Your task to perform on an android device: find snoozed emails in the gmail app Image 0: 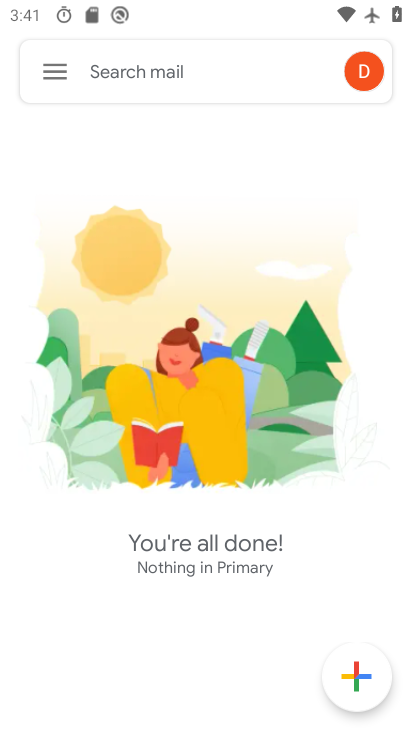
Step 0: press back button
Your task to perform on an android device: find snoozed emails in the gmail app Image 1: 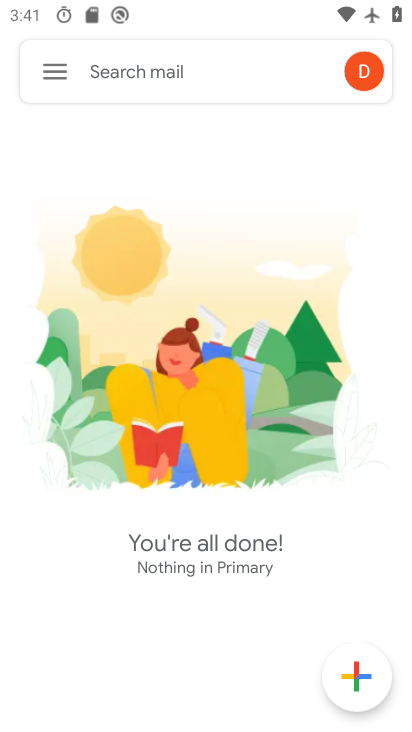
Step 1: press back button
Your task to perform on an android device: find snoozed emails in the gmail app Image 2: 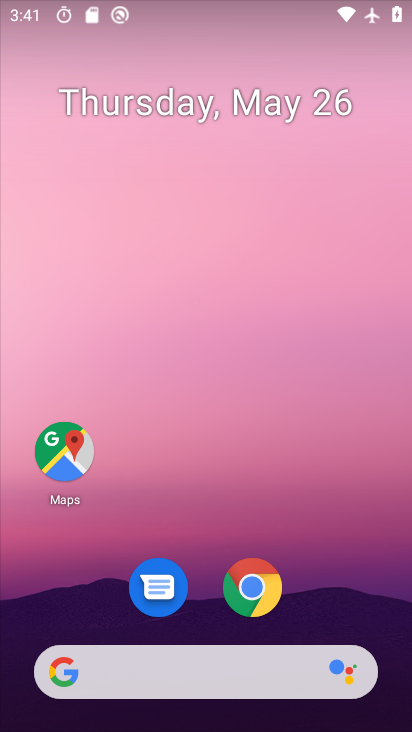
Step 2: drag from (303, 504) to (120, 3)
Your task to perform on an android device: find snoozed emails in the gmail app Image 3: 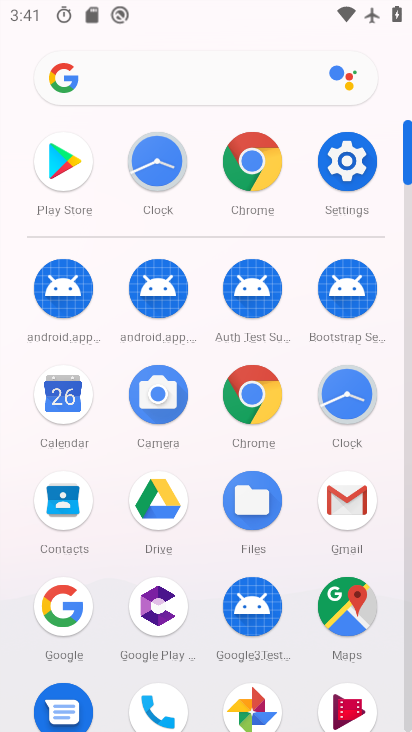
Step 3: click (349, 497)
Your task to perform on an android device: find snoozed emails in the gmail app Image 4: 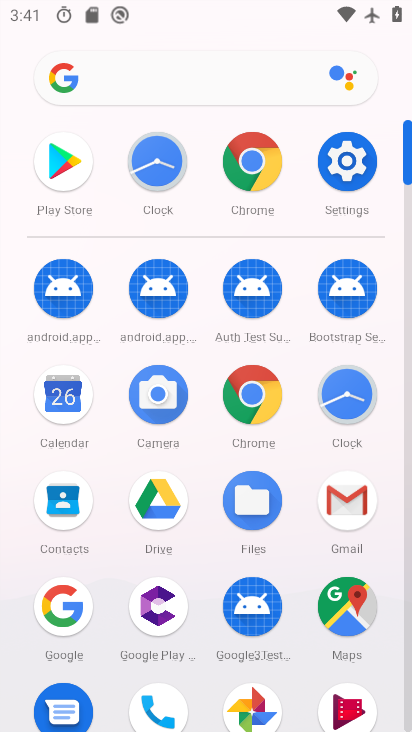
Step 4: click (349, 497)
Your task to perform on an android device: find snoozed emails in the gmail app Image 5: 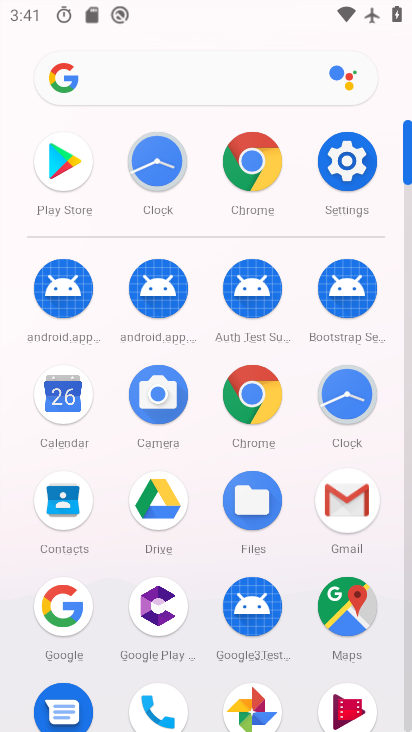
Step 5: click (348, 498)
Your task to perform on an android device: find snoozed emails in the gmail app Image 6: 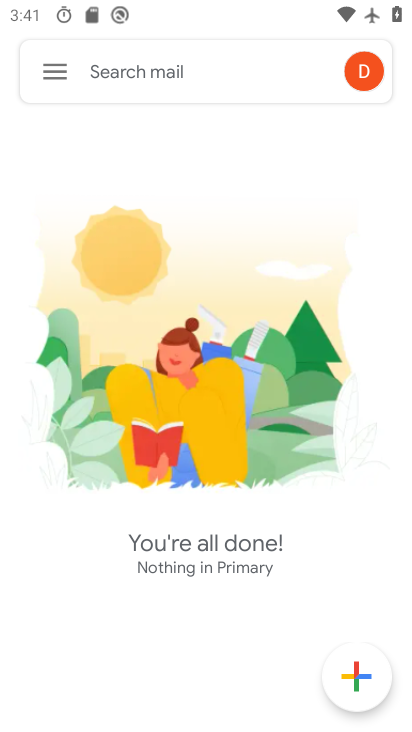
Step 6: click (68, 68)
Your task to perform on an android device: find snoozed emails in the gmail app Image 7: 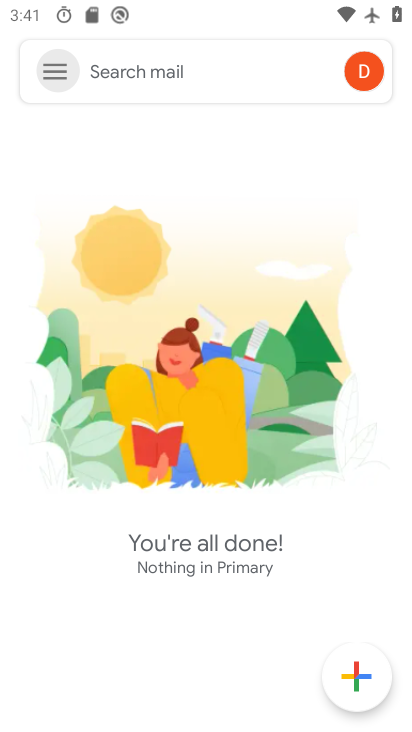
Step 7: click (69, 68)
Your task to perform on an android device: find snoozed emails in the gmail app Image 8: 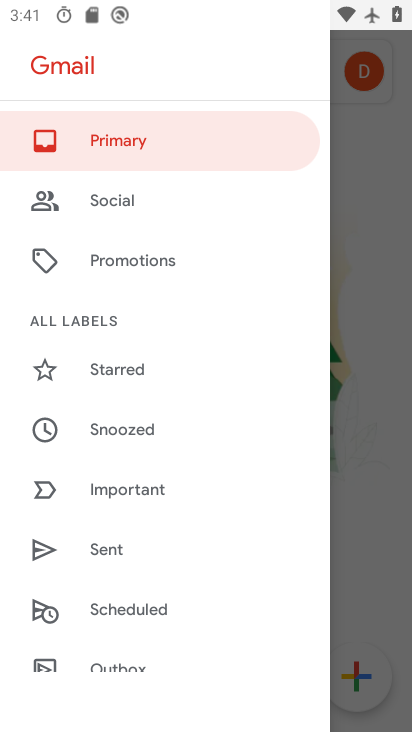
Step 8: drag from (153, 514) to (116, 160)
Your task to perform on an android device: find snoozed emails in the gmail app Image 9: 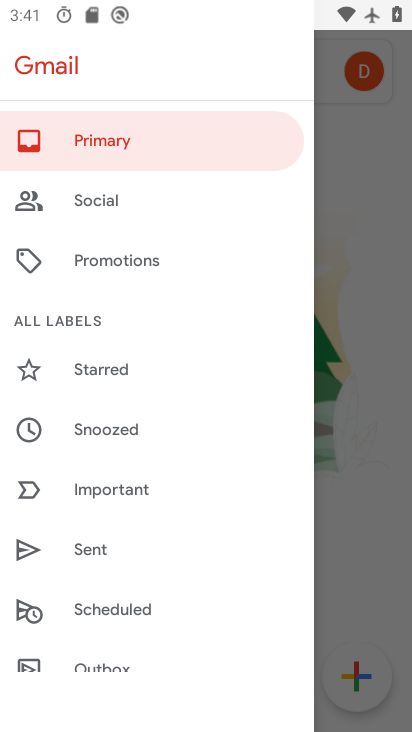
Step 9: drag from (116, 458) to (117, 181)
Your task to perform on an android device: find snoozed emails in the gmail app Image 10: 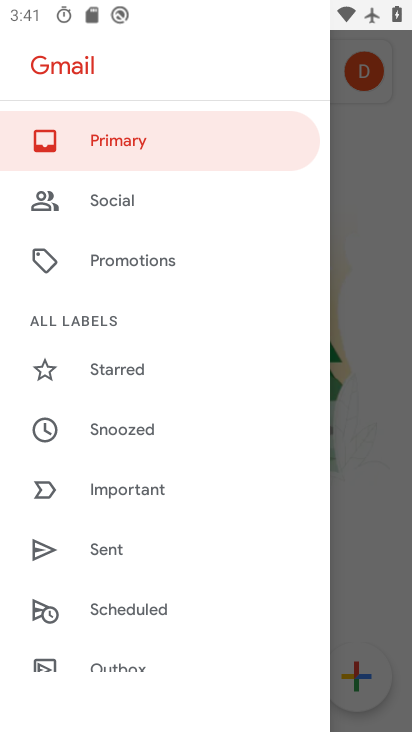
Step 10: drag from (51, 411) to (82, 176)
Your task to perform on an android device: find snoozed emails in the gmail app Image 11: 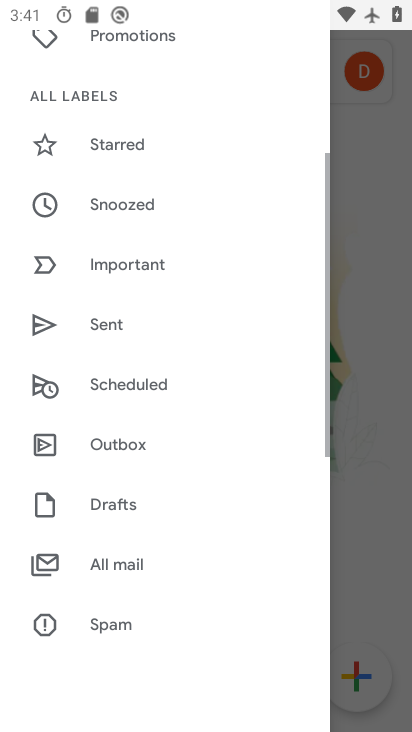
Step 11: drag from (147, 430) to (168, 232)
Your task to perform on an android device: find snoozed emails in the gmail app Image 12: 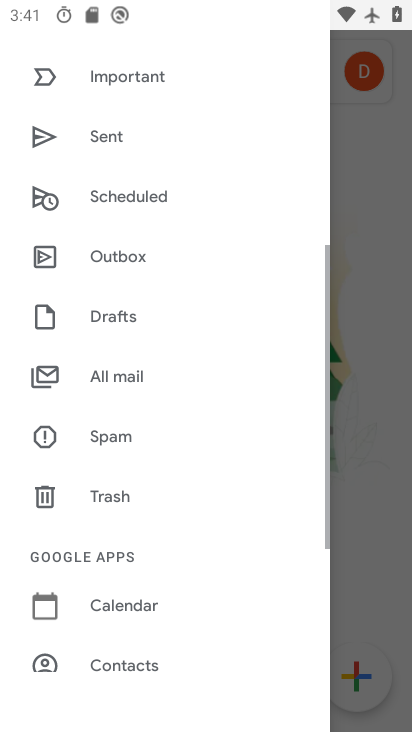
Step 12: drag from (186, 499) to (186, 163)
Your task to perform on an android device: find snoozed emails in the gmail app Image 13: 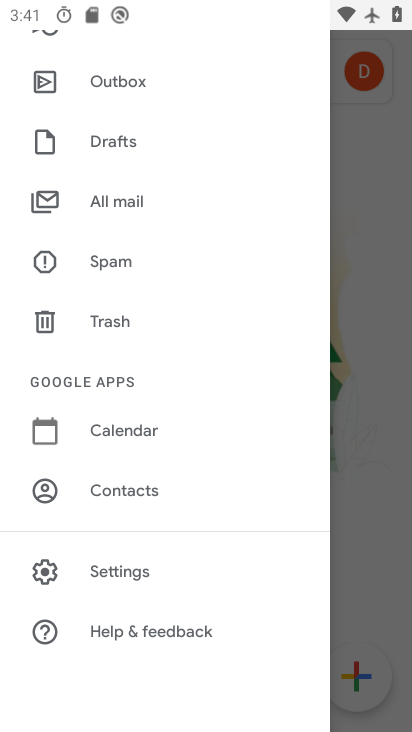
Step 13: click (123, 576)
Your task to perform on an android device: find snoozed emails in the gmail app Image 14: 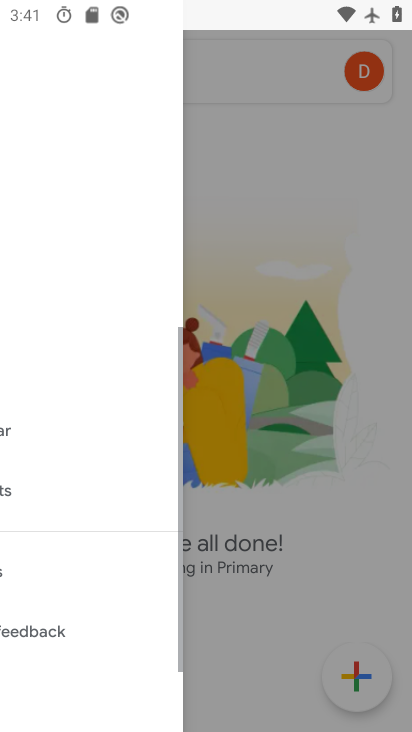
Step 14: click (129, 573)
Your task to perform on an android device: find snoozed emails in the gmail app Image 15: 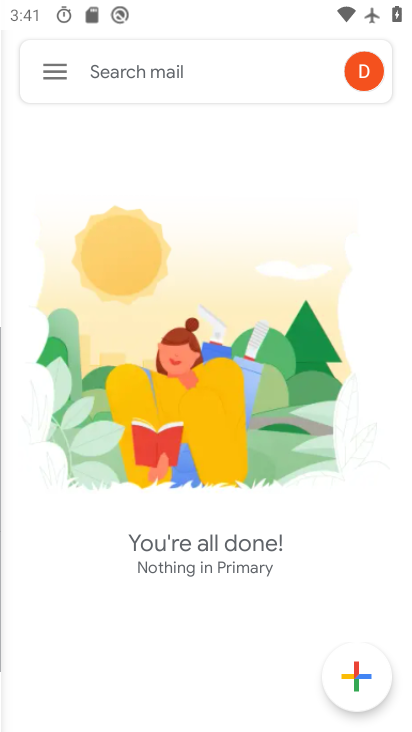
Step 15: click (134, 574)
Your task to perform on an android device: find snoozed emails in the gmail app Image 16: 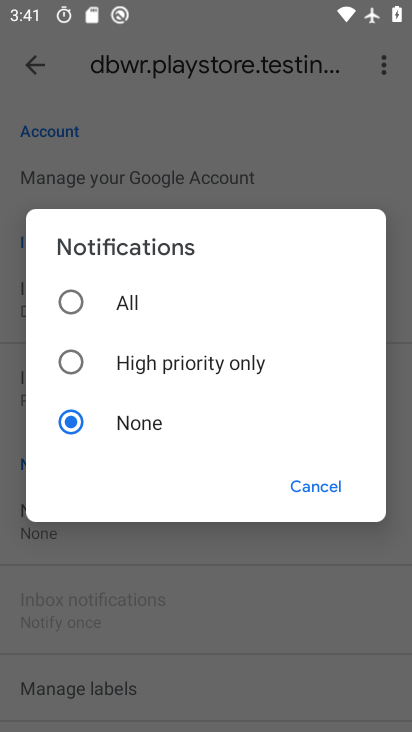
Step 16: click (302, 479)
Your task to perform on an android device: find snoozed emails in the gmail app Image 17: 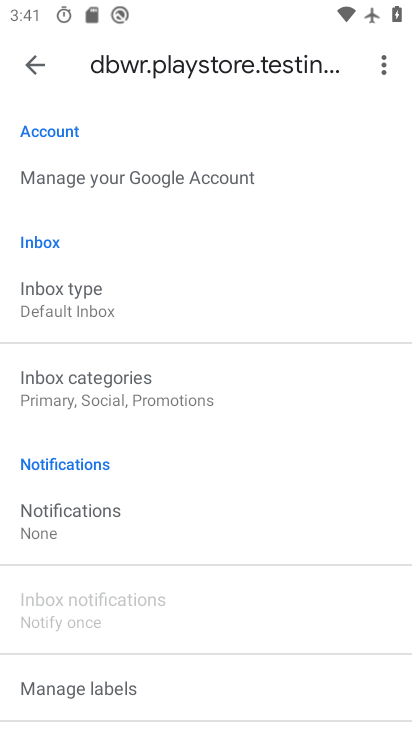
Step 17: click (71, 310)
Your task to perform on an android device: find snoozed emails in the gmail app Image 18: 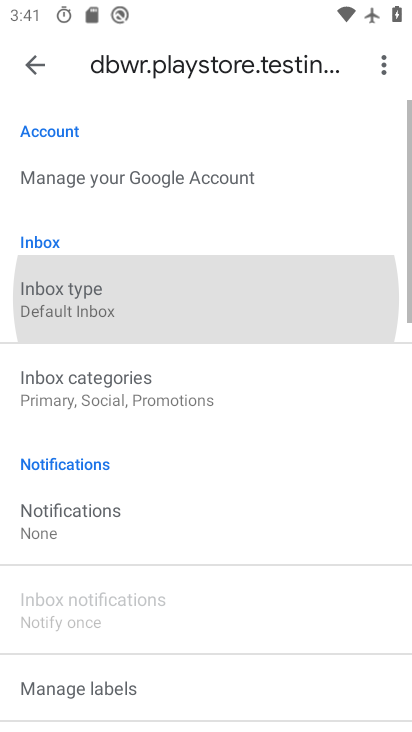
Step 18: click (71, 310)
Your task to perform on an android device: find snoozed emails in the gmail app Image 19: 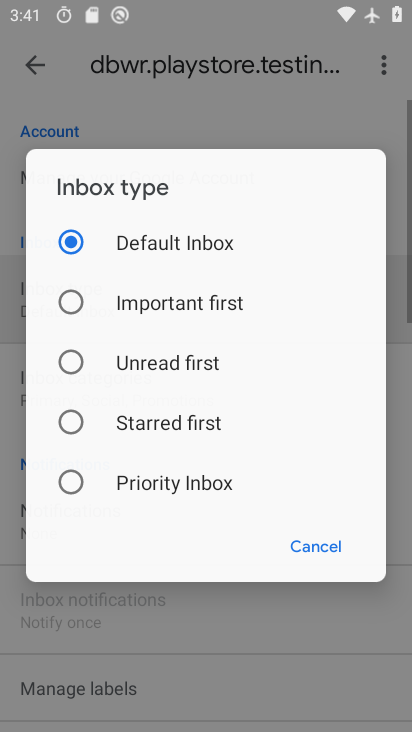
Step 19: click (71, 310)
Your task to perform on an android device: find snoozed emails in the gmail app Image 20: 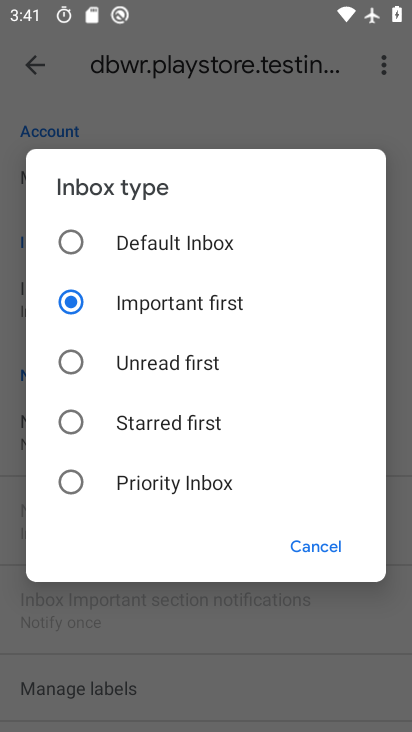
Step 20: click (325, 543)
Your task to perform on an android device: find snoozed emails in the gmail app Image 21: 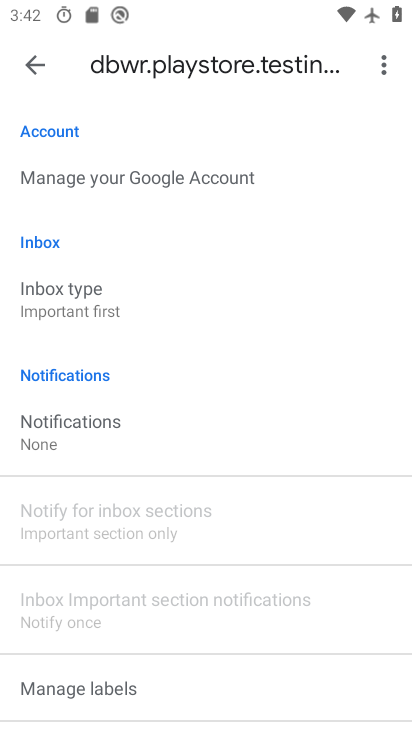
Step 21: drag from (86, 211) to (104, 558)
Your task to perform on an android device: find snoozed emails in the gmail app Image 22: 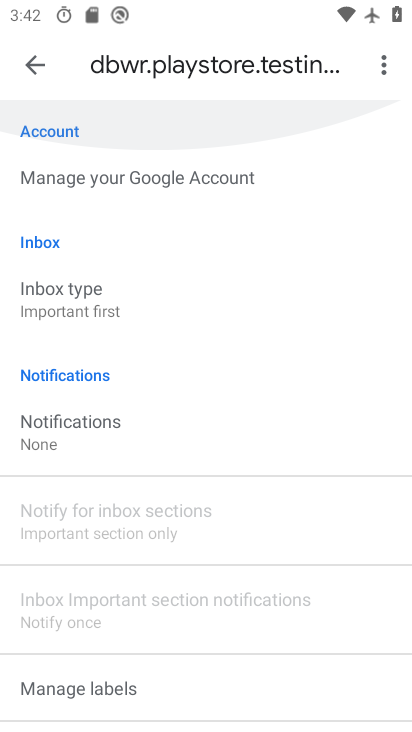
Step 22: drag from (76, 264) to (82, 491)
Your task to perform on an android device: find snoozed emails in the gmail app Image 23: 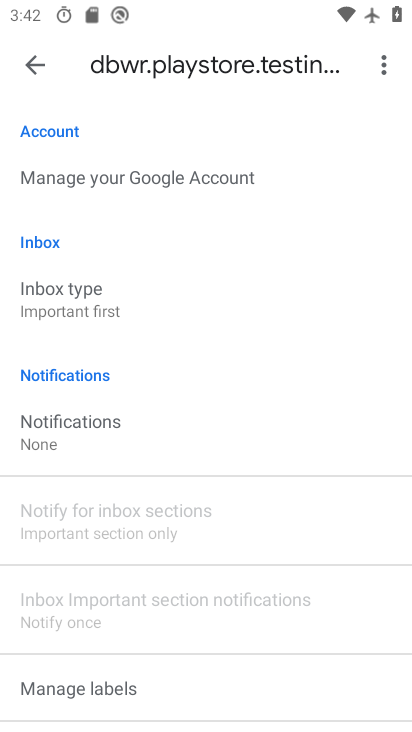
Step 23: drag from (63, 388) to (63, 77)
Your task to perform on an android device: find snoozed emails in the gmail app Image 24: 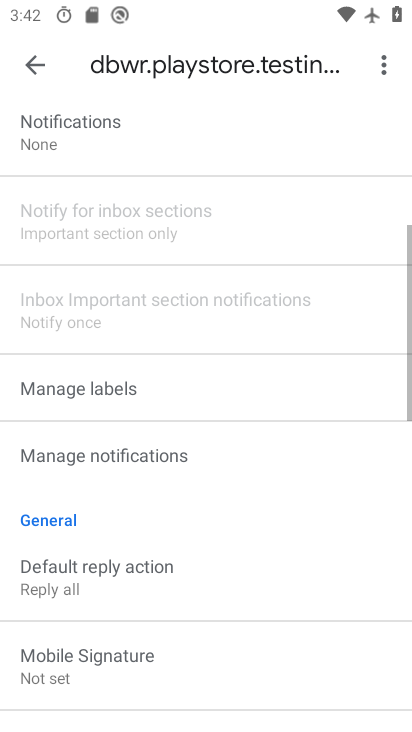
Step 24: drag from (72, 315) to (76, 109)
Your task to perform on an android device: find snoozed emails in the gmail app Image 25: 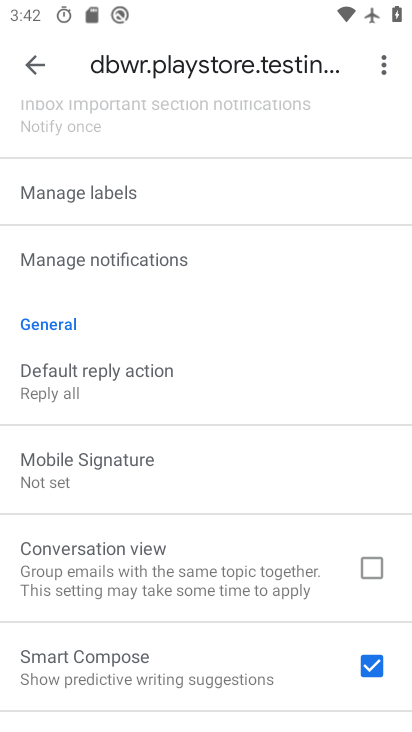
Step 25: drag from (99, 289) to (109, 529)
Your task to perform on an android device: find snoozed emails in the gmail app Image 26: 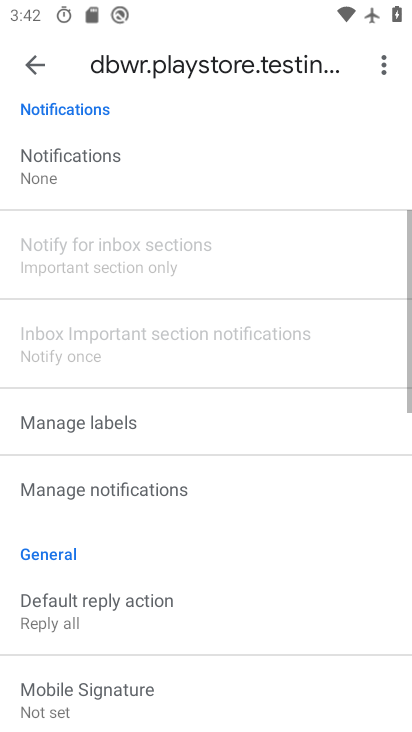
Step 26: drag from (60, 292) to (175, 652)
Your task to perform on an android device: find snoozed emails in the gmail app Image 27: 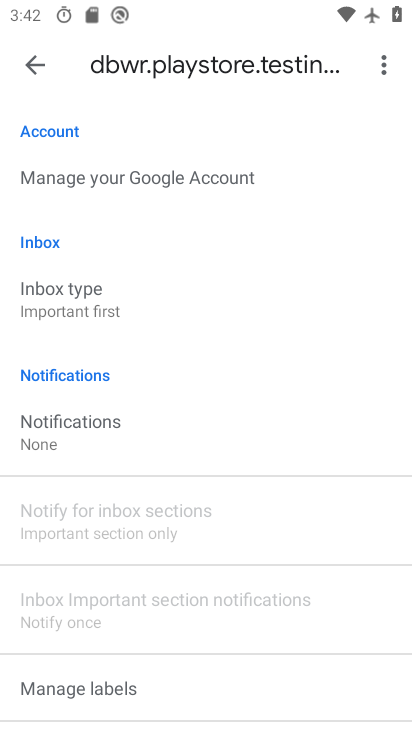
Step 27: click (33, 68)
Your task to perform on an android device: find snoozed emails in the gmail app Image 28: 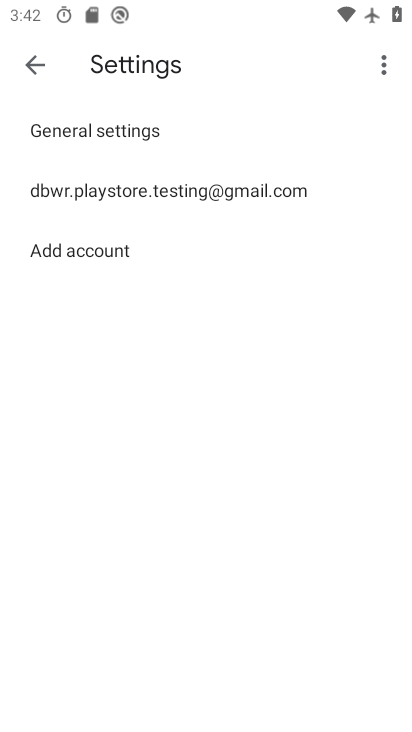
Step 28: click (33, 62)
Your task to perform on an android device: find snoozed emails in the gmail app Image 29: 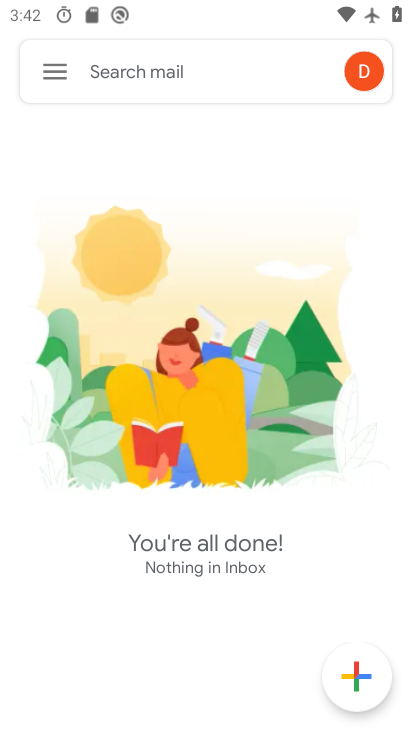
Step 29: click (59, 77)
Your task to perform on an android device: find snoozed emails in the gmail app Image 30: 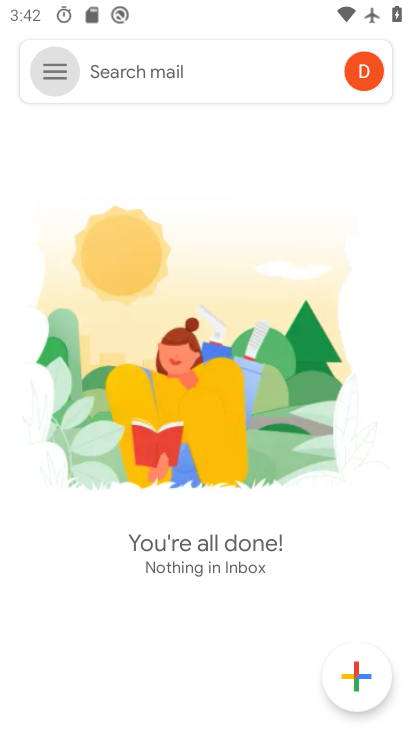
Step 30: click (59, 77)
Your task to perform on an android device: find snoozed emails in the gmail app Image 31: 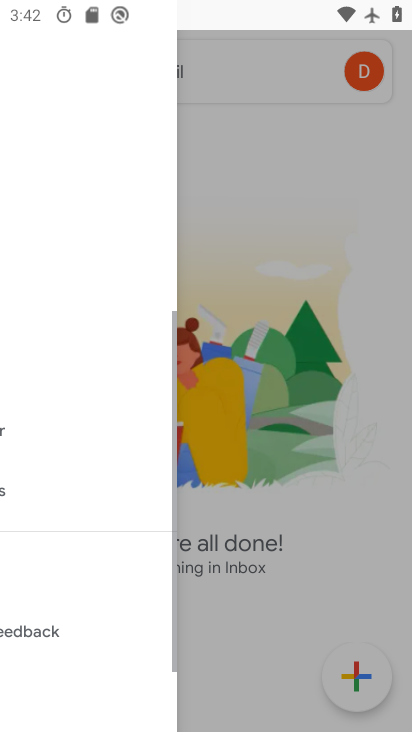
Step 31: click (59, 77)
Your task to perform on an android device: find snoozed emails in the gmail app Image 32: 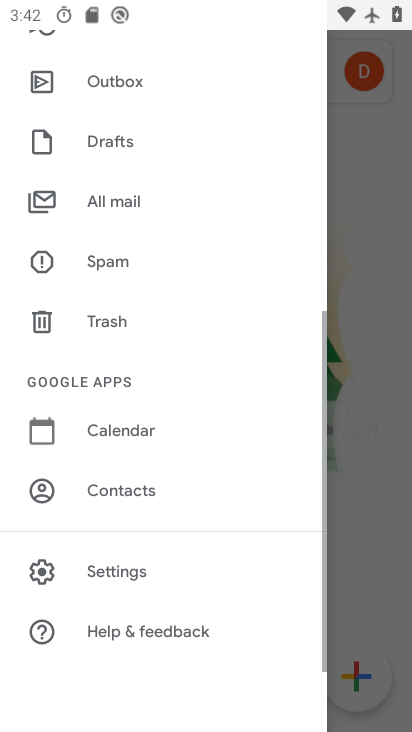
Step 32: click (59, 77)
Your task to perform on an android device: find snoozed emails in the gmail app Image 33: 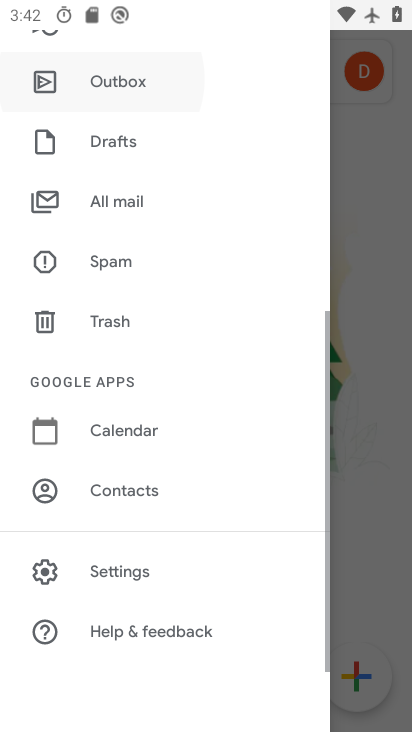
Step 33: drag from (59, 77) to (87, 397)
Your task to perform on an android device: find snoozed emails in the gmail app Image 34: 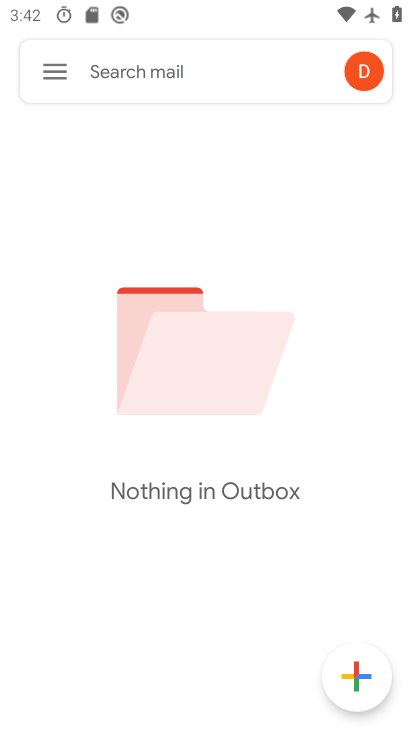
Step 34: click (49, 53)
Your task to perform on an android device: find snoozed emails in the gmail app Image 35: 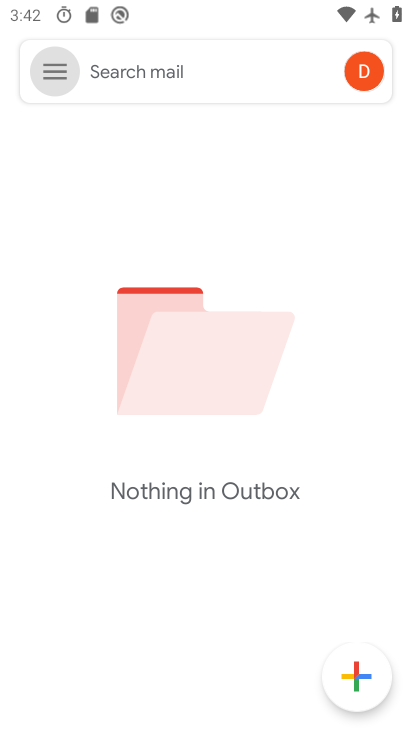
Step 35: click (55, 79)
Your task to perform on an android device: find snoozed emails in the gmail app Image 36: 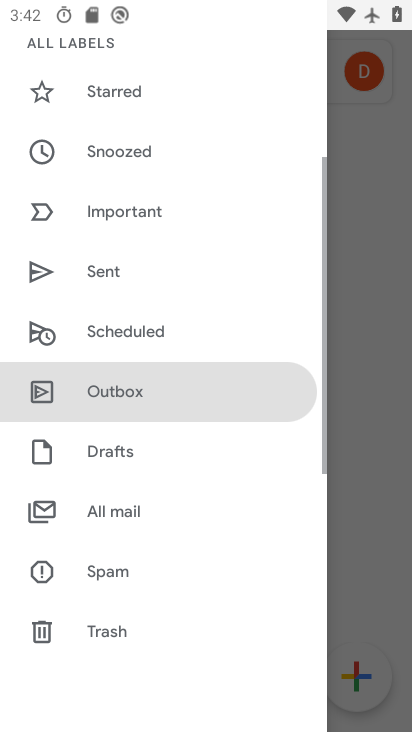
Step 36: drag from (55, 79) to (133, 281)
Your task to perform on an android device: find snoozed emails in the gmail app Image 37: 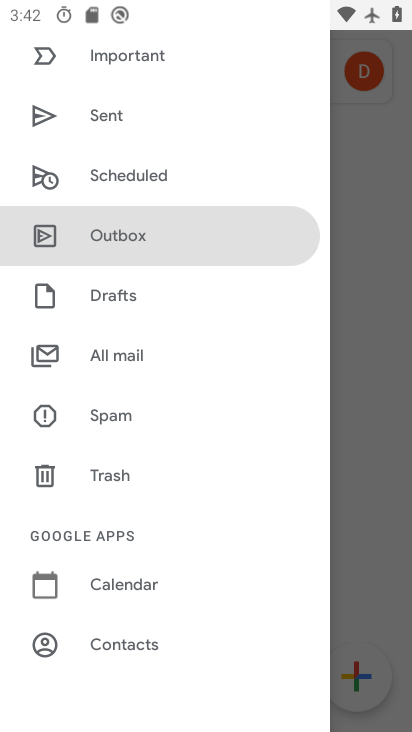
Step 37: drag from (137, 79) to (124, 541)
Your task to perform on an android device: find snoozed emails in the gmail app Image 38: 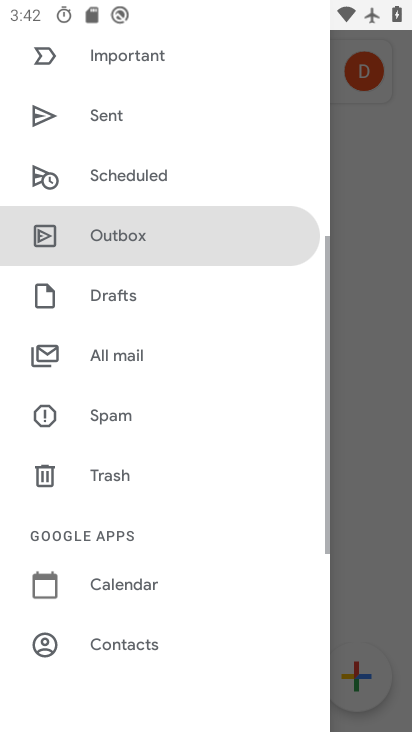
Step 38: drag from (126, 203) to (97, 561)
Your task to perform on an android device: find snoozed emails in the gmail app Image 39: 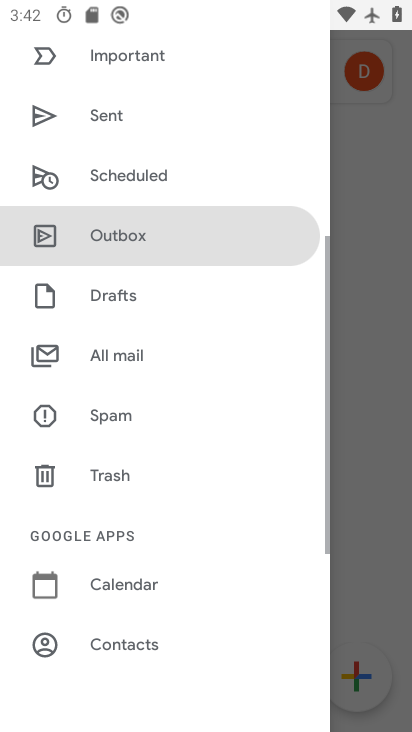
Step 39: drag from (97, 202) to (109, 541)
Your task to perform on an android device: find snoozed emails in the gmail app Image 40: 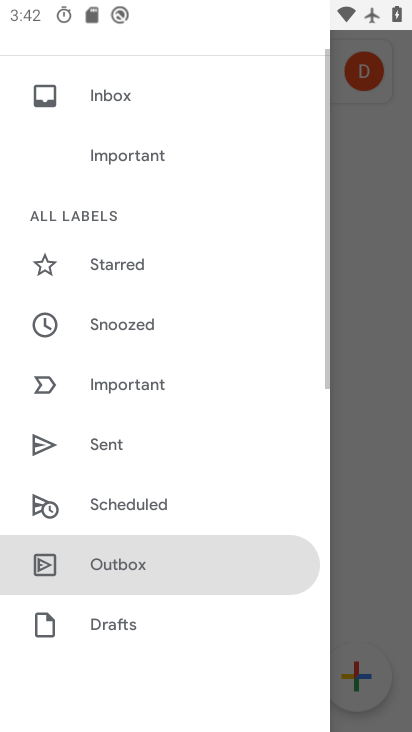
Step 40: click (118, 327)
Your task to perform on an android device: find snoozed emails in the gmail app Image 41: 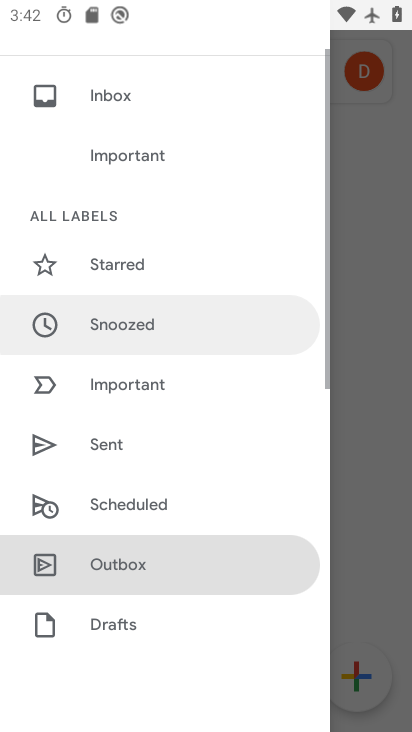
Step 41: click (119, 327)
Your task to perform on an android device: find snoozed emails in the gmail app Image 42: 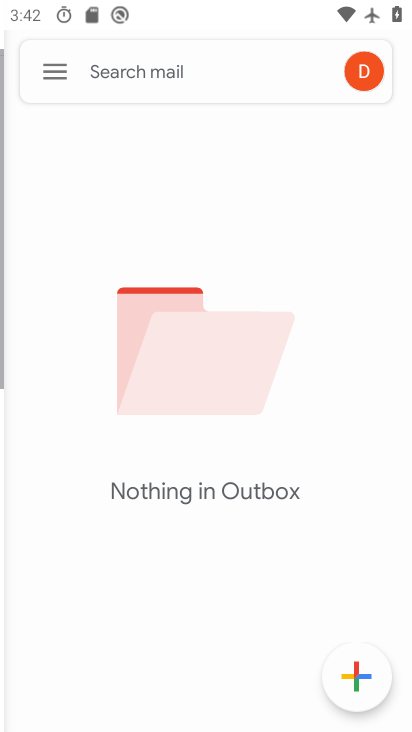
Step 42: click (119, 327)
Your task to perform on an android device: find snoozed emails in the gmail app Image 43: 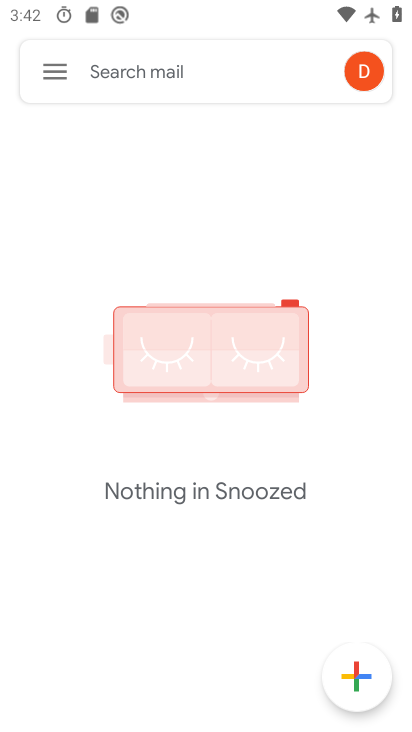
Step 43: task complete